Your task to perform on an android device: Open the Play Movies app and select the watchlist tab. Image 0: 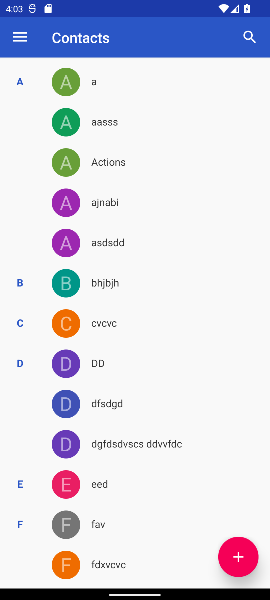
Step 0: press home button
Your task to perform on an android device: Open the Play Movies app and select the watchlist tab. Image 1: 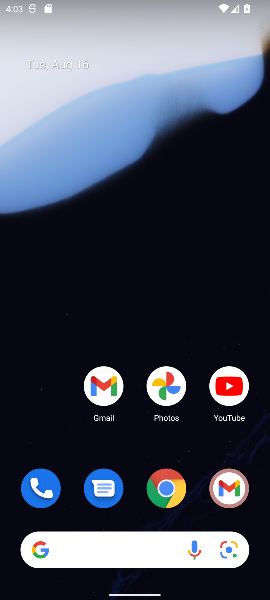
Step 1: drag from (44, 413) to (89, 177)
Your task to perform on an android device: Open the Play Movies app and select the watchlist tab. Image 2: 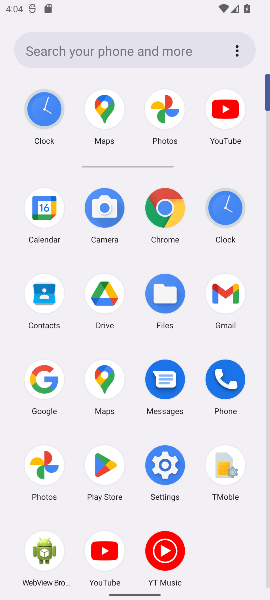
Step 2: click (103, 560)
Your task to perform on an android device: Open the Play Movies app and select the watchlist tab. Image 3: 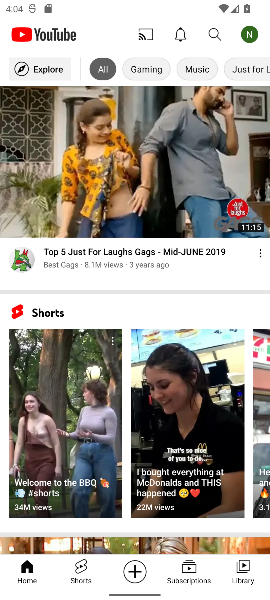
Step 3: task complete